Your task to perform on an android device: Open Google Chrome and click the shortcut for Amazon.com Image 0: 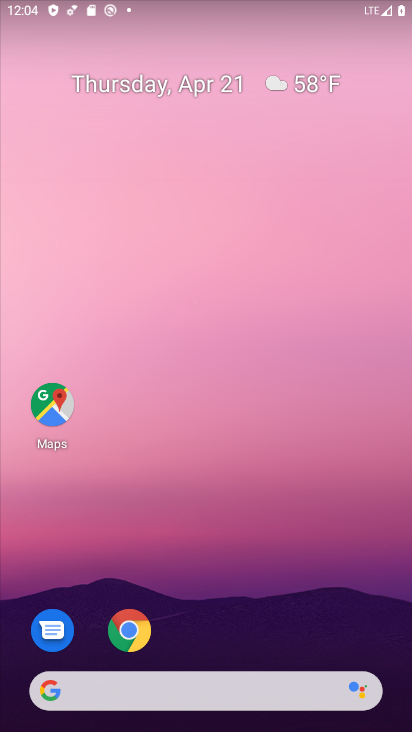
Step 0: drag from (156, 690) to (320, 196)
Your task to perform on an android device: Open Google Chrome and click the shortcut for Amazon.com Image 1: 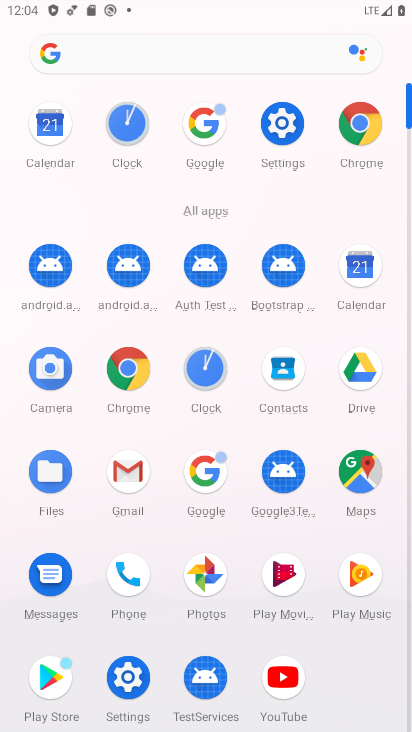
Step 1: click (364, 126)
Your task to perform on an android device: Open Google Chrome and click the shortcut for Amazon.com Image 2: 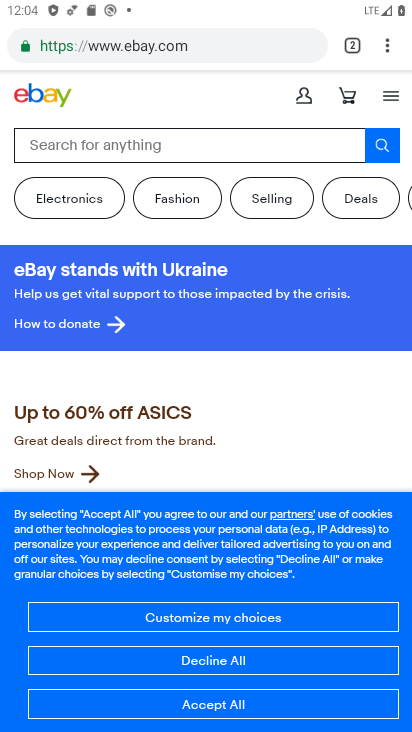
Step 2: click (382, 54)
Your task to perform on an android device: Open Google Chrome and click the shortcut for Amazon.com Image 3: 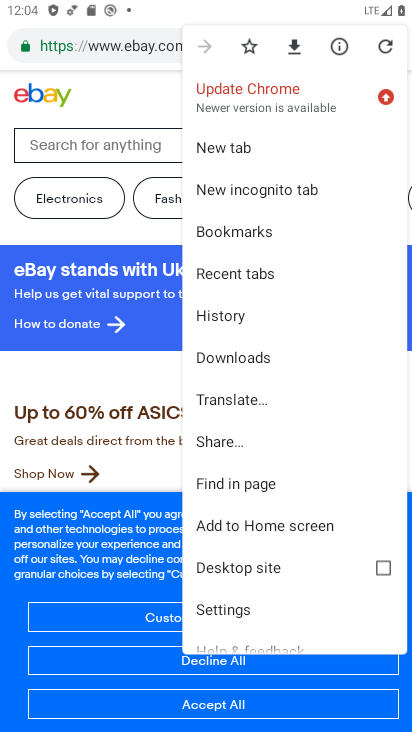
Step 3: click (217, 149)
Your task to perform on an android device: Open Google Chrome and click the shortcut for Amazon.com Image 4: 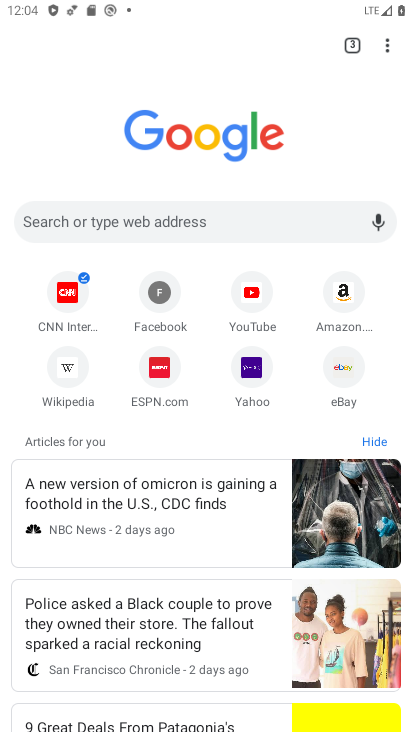
Step 4: click (342, 291)
Your task to perform on an android device: Open Google Chrome and click the shortcut for Amazon.com Image 5: 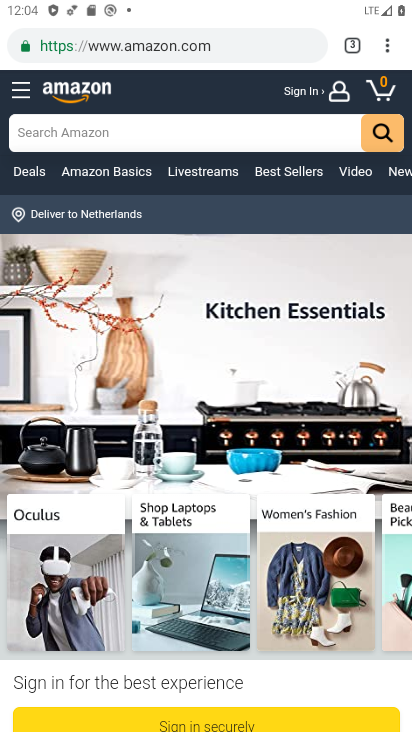
Step 5: task complete